Your task to perform on an android device: Show me productivity apps on the Play Store Image 0: 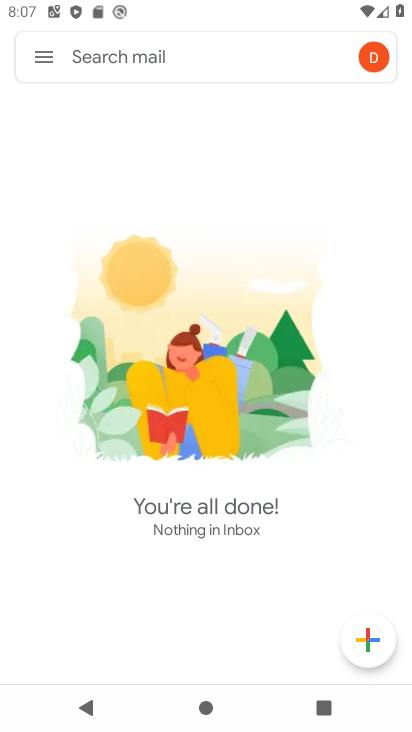
Step 0: press home button
Your task to perform on an android device: Show me productivity apps on the Play Store Image 1: 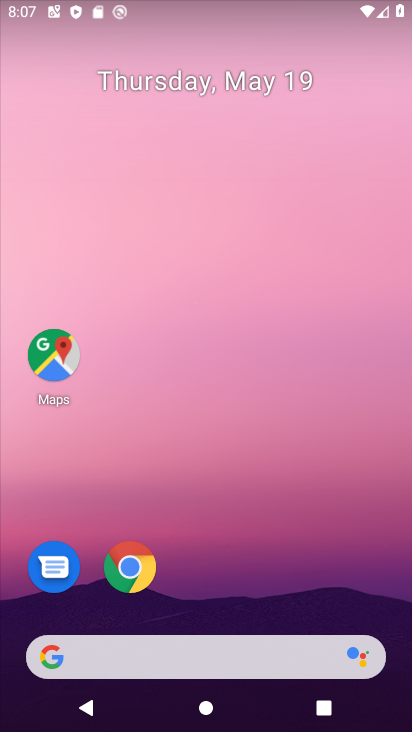
Step 1: drag from (192, 614) to (177, 180)
Your task to perform on an android device: Show me productivity apps on the Play Store Image 2: 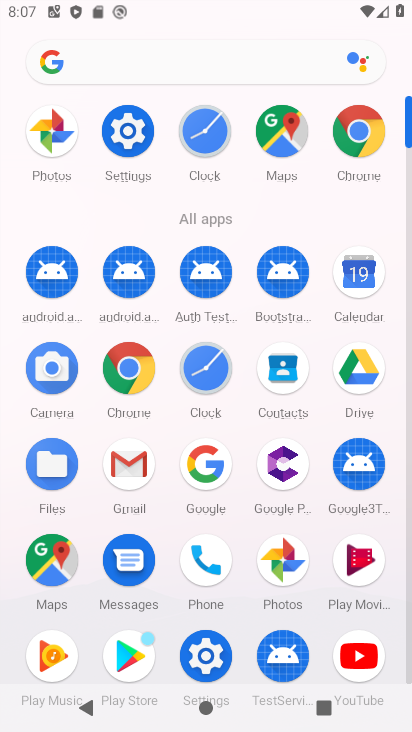
Step 2: click (124, 650)
Your task to perform on an android device: Show me productivity apps on the Play Store Image 3: 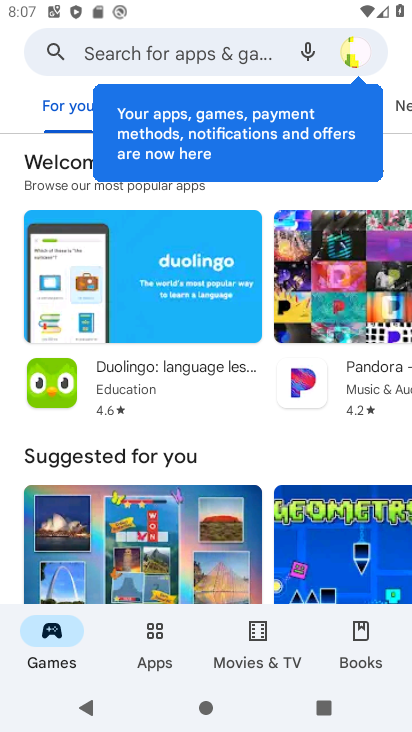
Step 3: click (171, 656)
Your task to perform on an android device: Show me productivity apps on the Play Store Image 4: 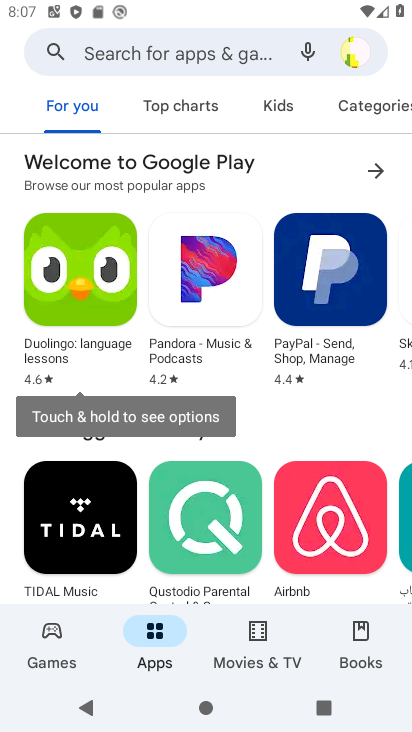
Step 4: click (390, 122)
Your task to perform on an android device: Show me productivity apps on the Play Store Image 5: 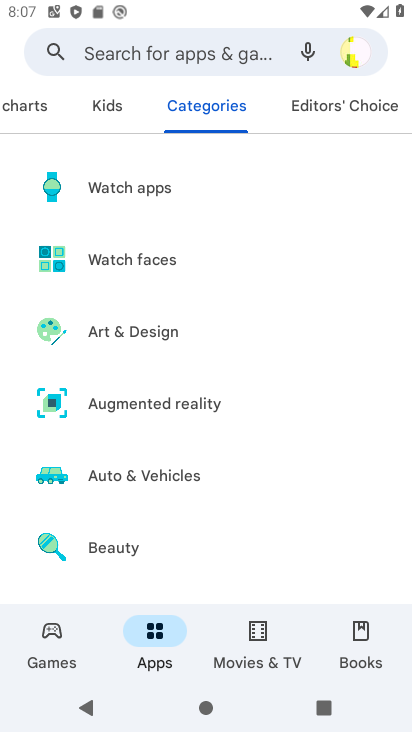
Step 5: drag from (80, 556) to (123, 92)
Your task to perform on an android device: Show me productivity apps on the Play Store Image 6: 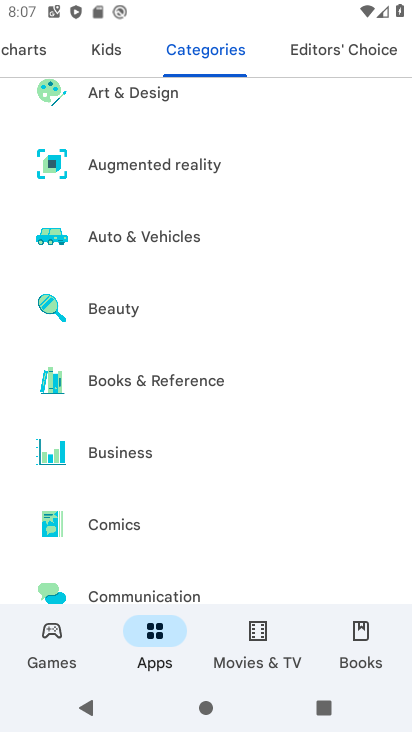
Step 6: drag from (161, 535) to (198, 85)
Your task to perform on an android device: Show me productivity apps on the Play Store Image 7: 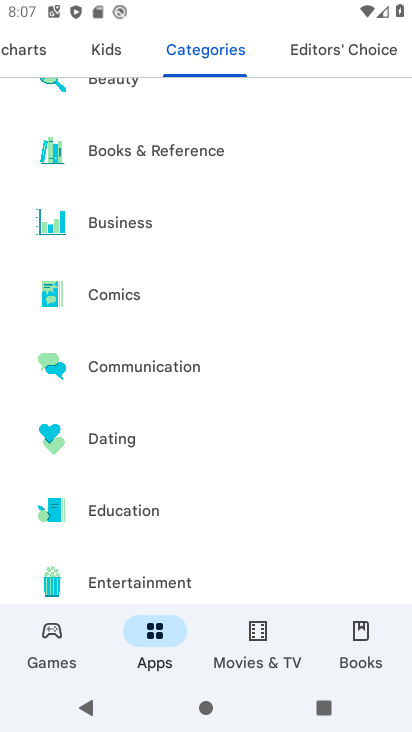
Step 7: drag from (119, 569) to (130, 88)
Your task to perform on an android device: Show me productivity apps on the Play Store Image 8: 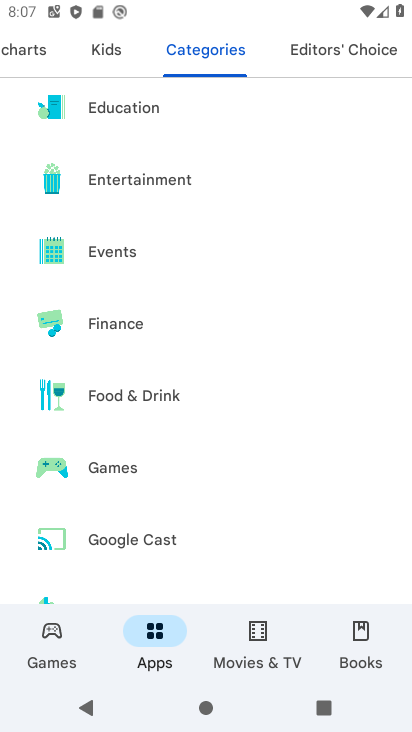
Step 8: drag from (105, 570) to (144, 93)
Your task to perform on an android device: Show me productivity apps on the Play Store Image 9: 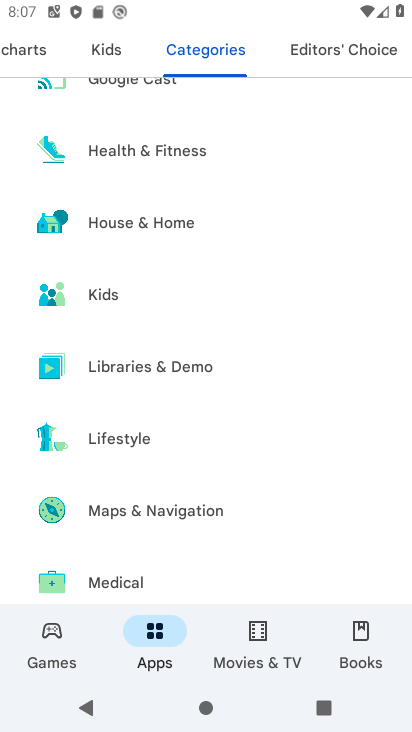
Step 9: drag from (151, 548) to (268, 101)
Your task to perform on an android device: Show me productivity apps on the Play Store Image 10: 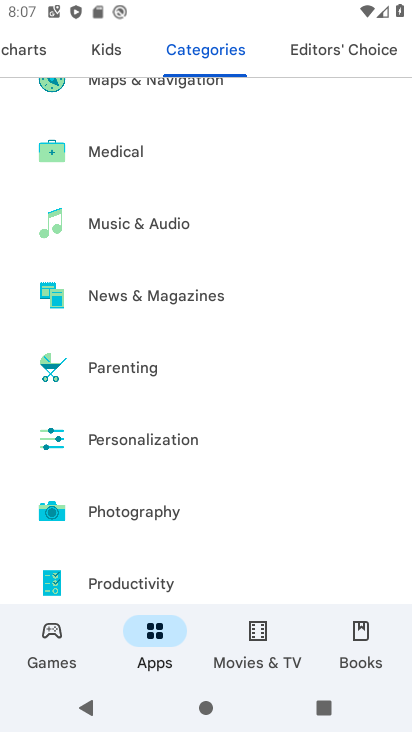
Step 10: click (109, 581)
Your task to perform on an android device: Show me productivity apps on the Play Store Image 11: 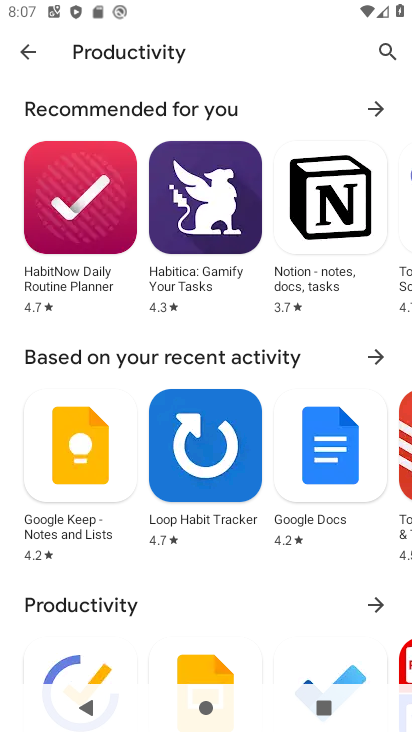
Step 11: task complete